Your task to perform on an android device: check battery use Image 0: 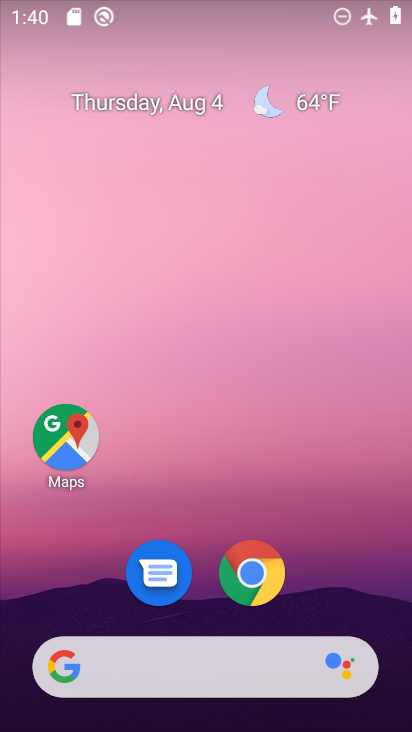
Step 0: drag from (348, 459) to (290, 10)
Your task to perform on an android device: check battery use Image 1: 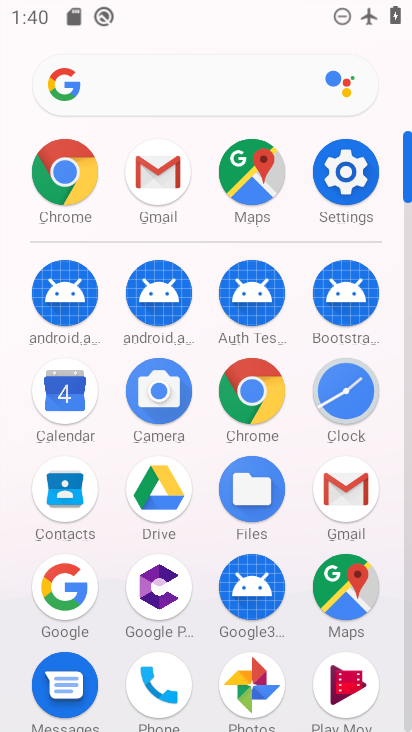
Step 1: click (339, 182)
Your task to perform on an android device: check battery use Image 2: 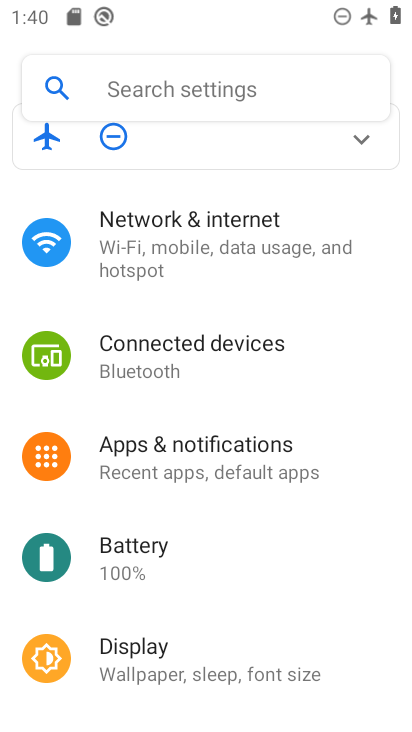
Step 2: drag from (247, 641) to (243, 239)
Your task to perform on an android device: check battery use Image 3: 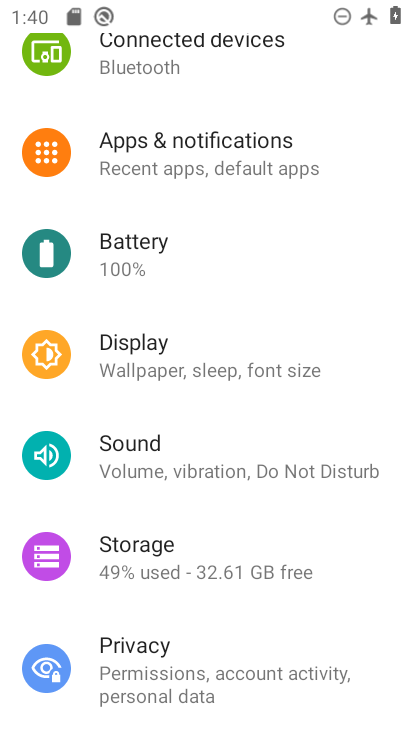
Step 3: click (117, 267)
Your task to perform on an android device: check battery use Image 4: 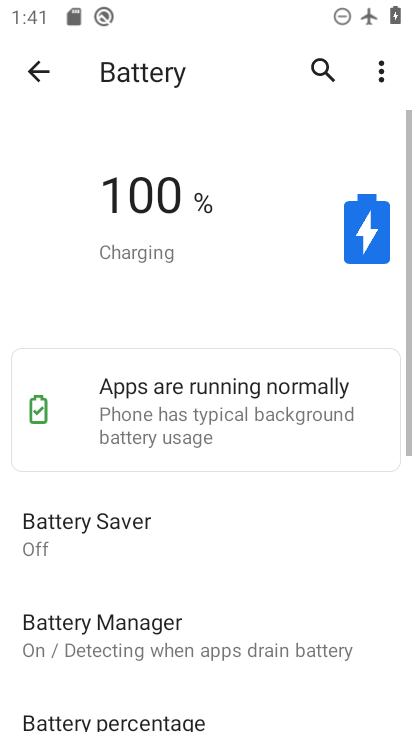
Step 4: drag from (237, 515) to (261, 151)
Your task to perform on an android device: check battery use Image 5: 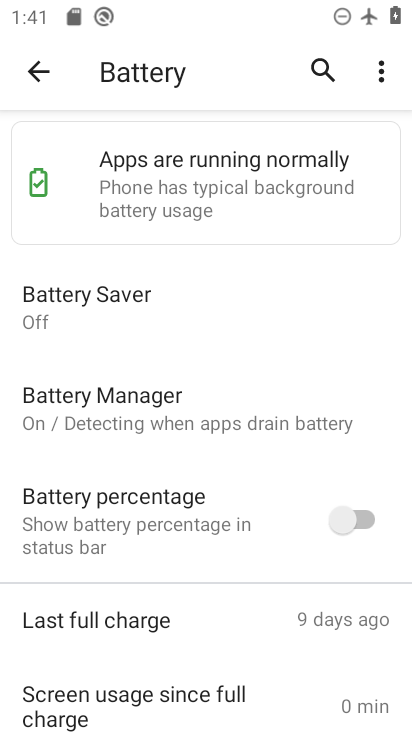
Step 5: drag from (265, 229) to (217, 610)
Your task to perform on an android device: check battery use Image 6: 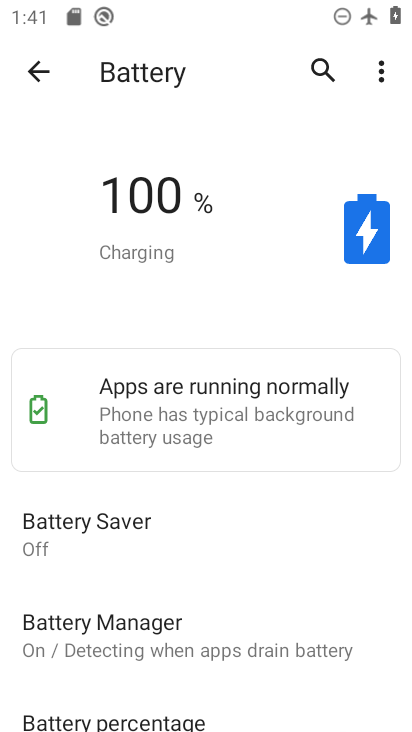
Step 6: click (386, 81)
Your task to perform on an android device: check battery use Image 7: 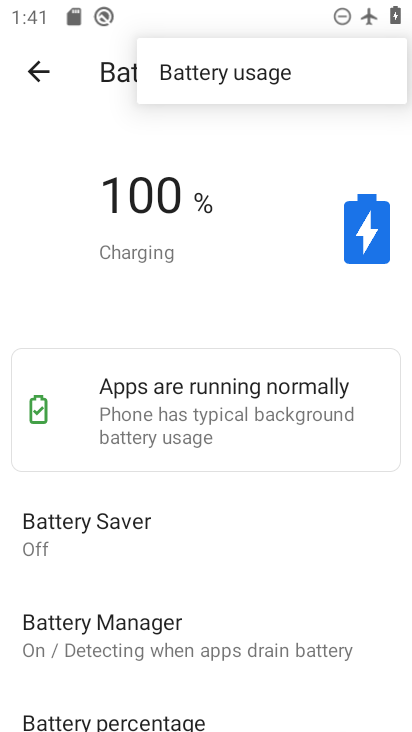
Step 7: click (308, 72)
Your task to perform on an android device: check battery use Image 8: 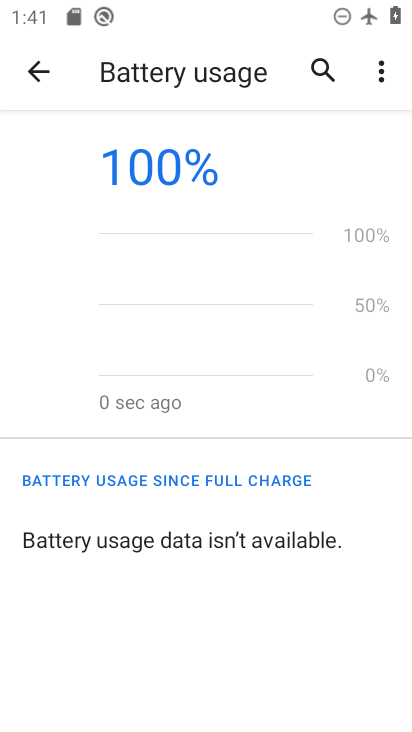
Step 8: task complete